Your task to perform on an android device: change alarm snooze length Image 0: 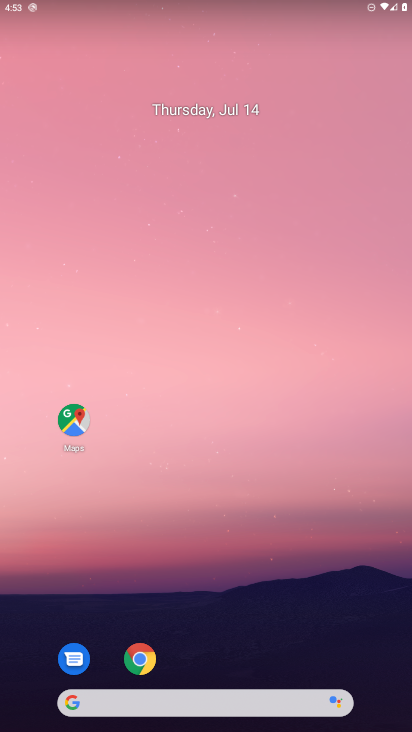
Step 0: drag from (221, 578) to (251, 156)
Your task to perform on an android device: change alarm snooze length Image 1: 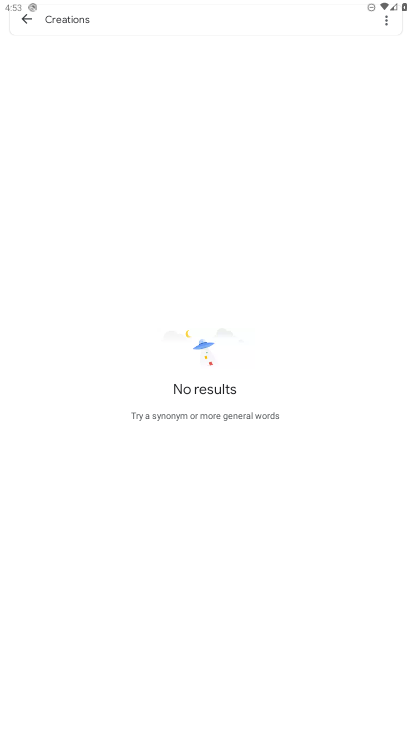
Step 1: press home button
Your task to perform on an android device: change alarm snooze length Image 2: 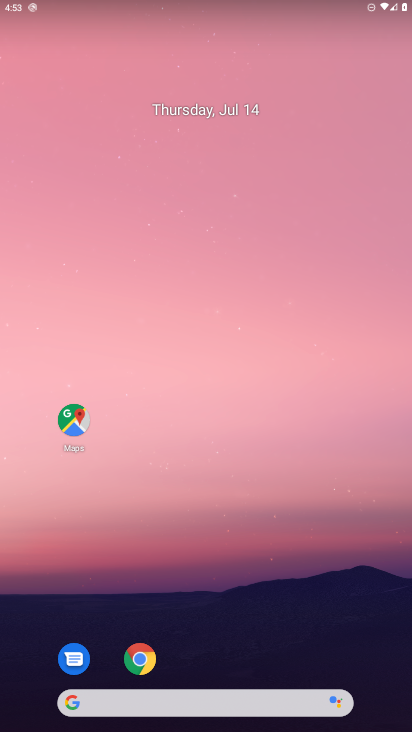
Step 2: drag from (202, 676) to (232, 80)
Your task to perform on an android device: change alarm snooze length Image 3: 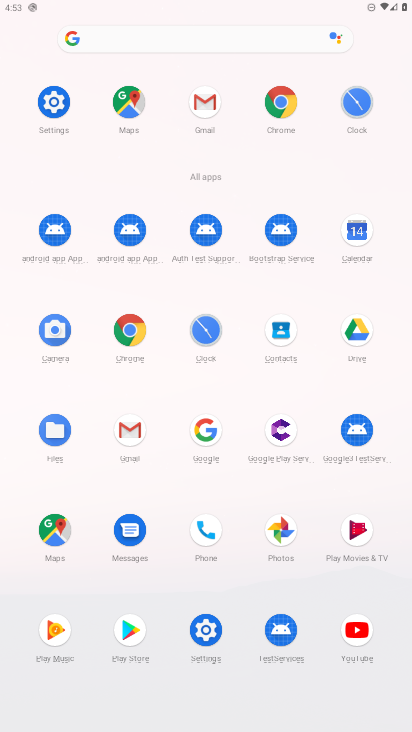
Step 3: click (203, 322)
Your task to perform on an android device: change alarm snooze length Image 4: 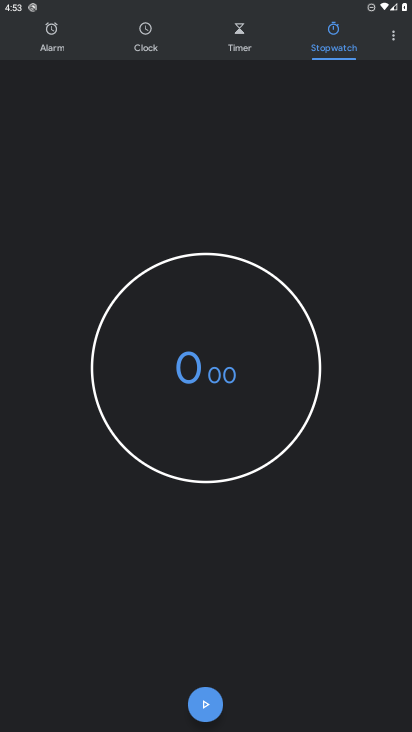
Step 4: click (385, 32)
Your task to perform on an android device: change alarm snooze length Image 5: 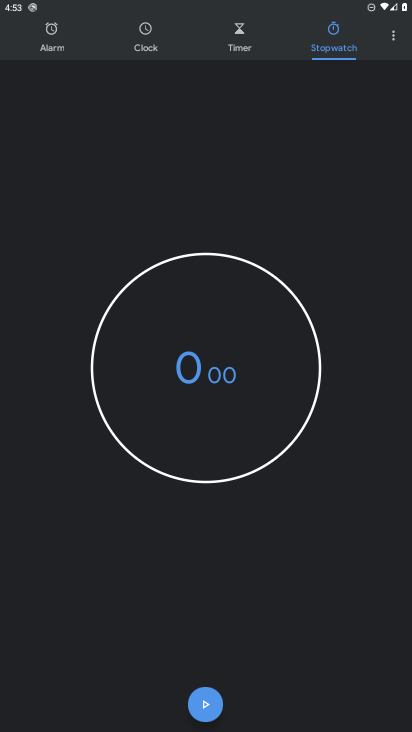
Step 5: click (393, 35)
Your task to perform on an android device: change alarm snooze length Image 6: 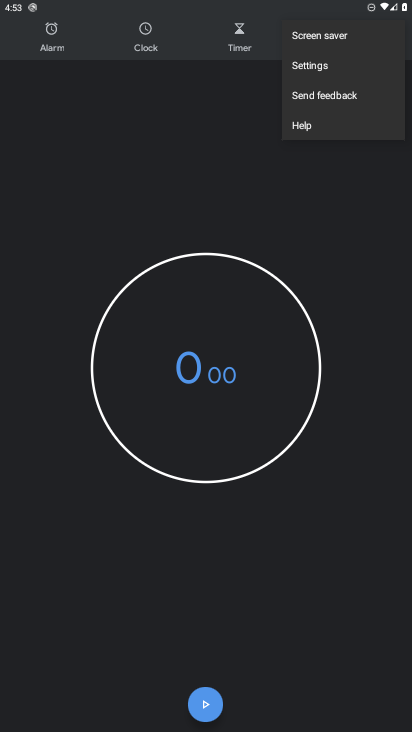
Step 6: click (333, 65)
Your task to perform on an android device: change alarm snooze length Image 7: 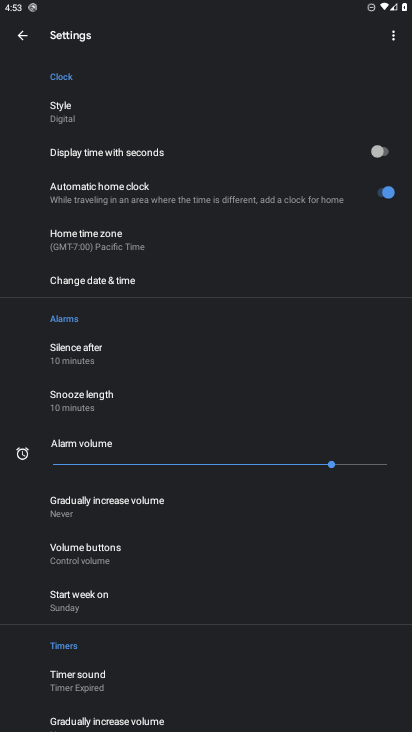
Step 7: click (121, 394)
Your task to perform on an android device: change alarm snooze length Image 8: 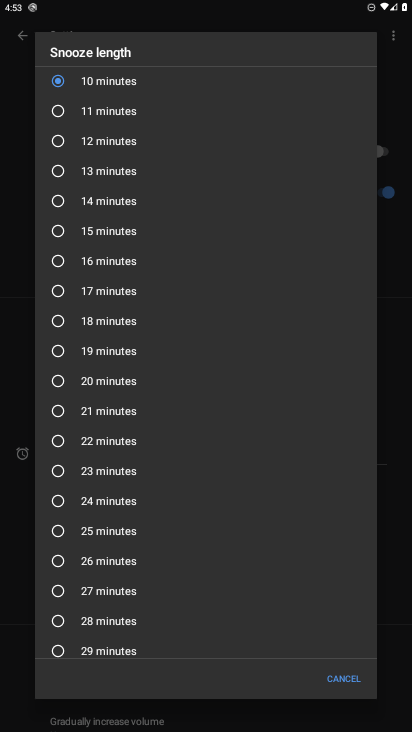
Step 8: drag from (102, 151) to (126, 528)
Your task to perform on an android device: change alarm snooze length Image 9: 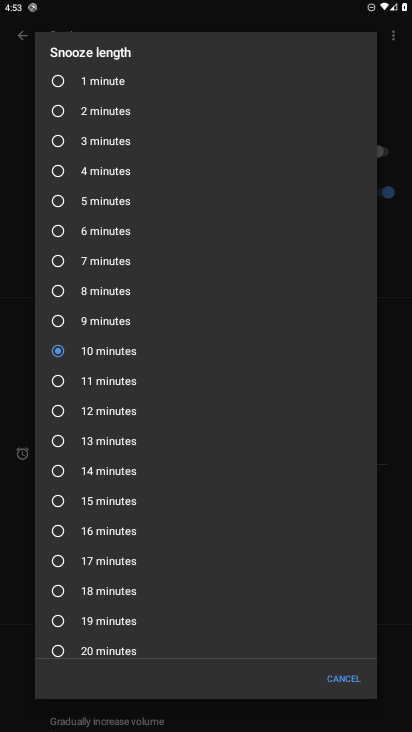
Step 9: click (54, 200)
Your task to perform on an android device: change alarm snooze length Image 10: 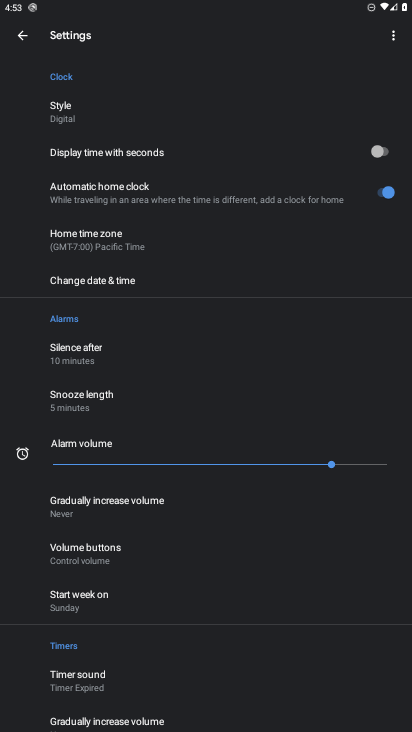
Step 10: task complete